Your task to perform on an android device: Open the web browser Image 0: 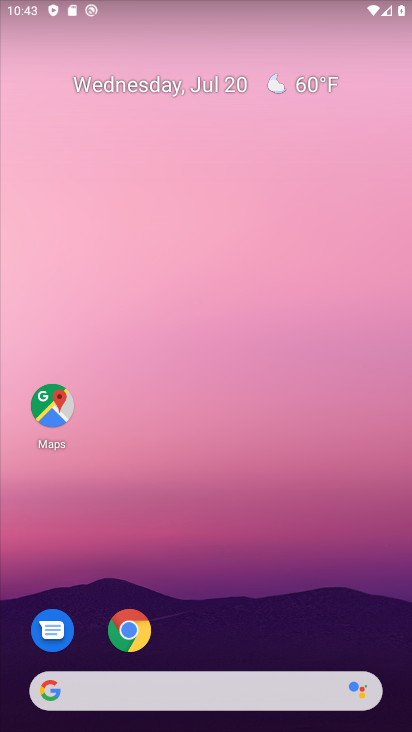
Step 0: drag from (209, 655) to (143, 101)
Your task to perform on an android device: Open the web browser Image 1: 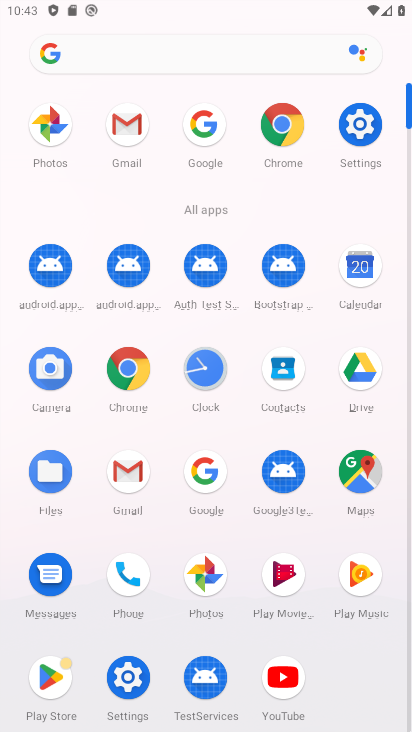
Step 1: click (203, 469)
Your task to perform on an android device: Open the web browser Image 2: 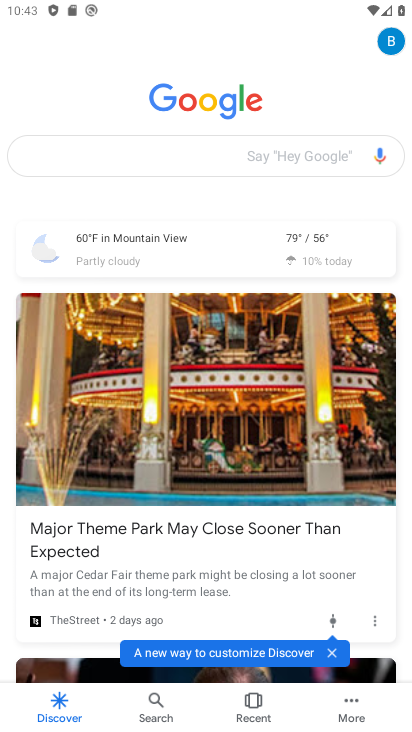
Step 2: task complete